Your task to perform on an android device: turn off data saver in the chrome app Image 0: 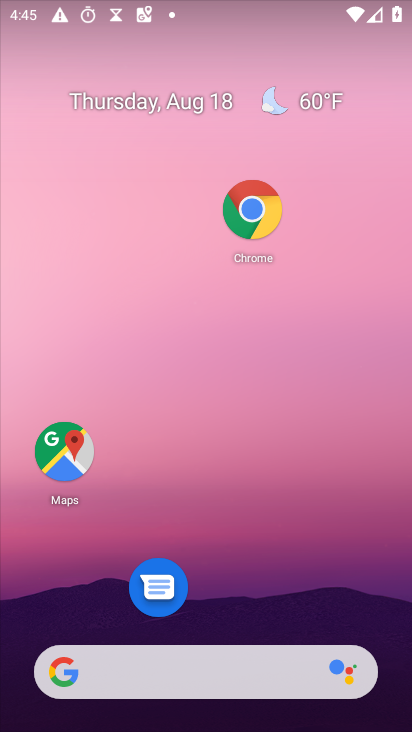
Step 0: drag from (306, 583) to (192, 36)
Your task to perform on an android device: turn off data saver in the chrome app Image 1: 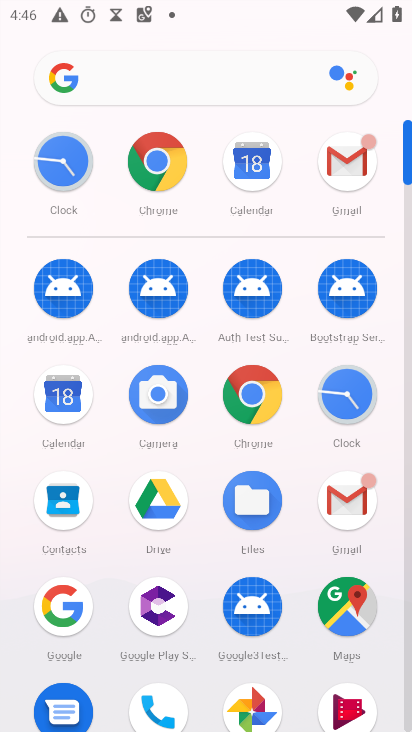
Step 1: click (265, 397)
Your task to perform on an android device: turn off data saver in the chrome app Image 2: 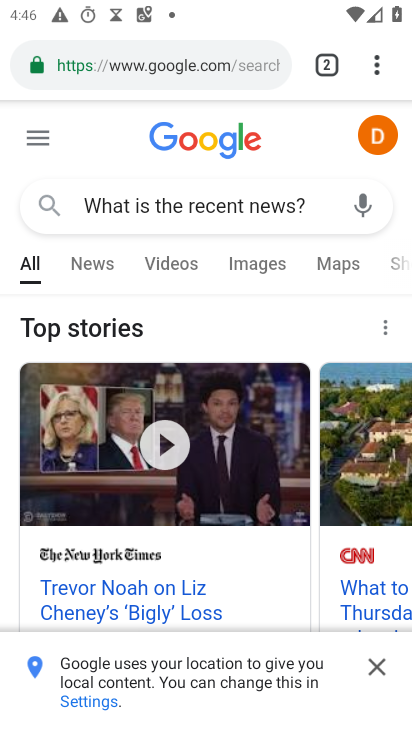
Step 2: drag from (377, 75) to (189, 639)
Your task to perform on an android device: turn off data saver in the chrome app Image 3: 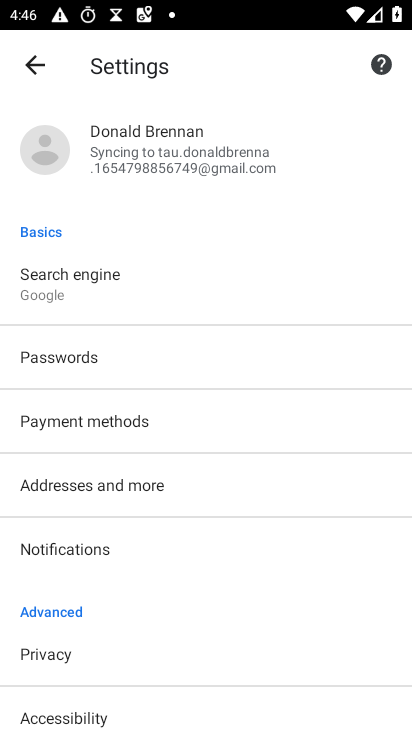
Step 3: drag from (141, 649) to (177, 416)
Your task to perform on an android device: turn off data saver in the chrome app Image 4: 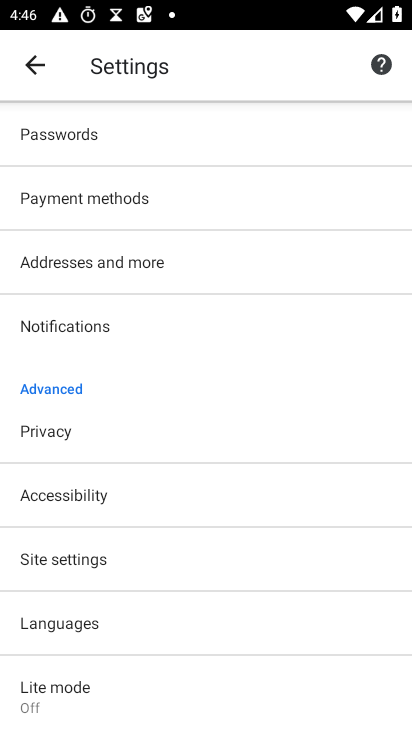
Step 4: click (48, 687)
Your task to perform on an android device: turn off data saver in the chrome app Image 5: 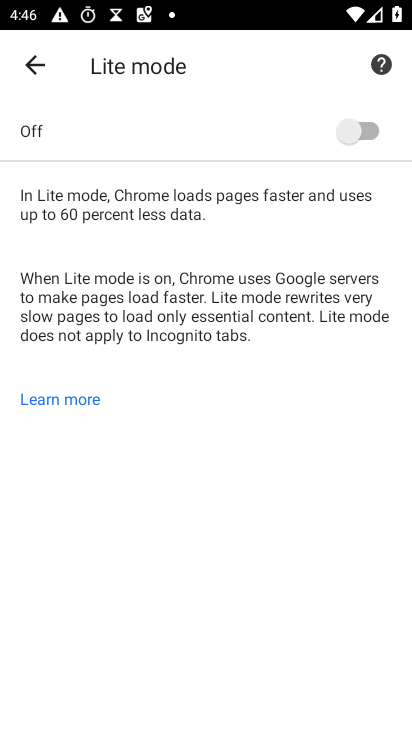
Step 5: task complete